Your task to perform on an android device: open chrome and create a bookmark for the current page Image 0: 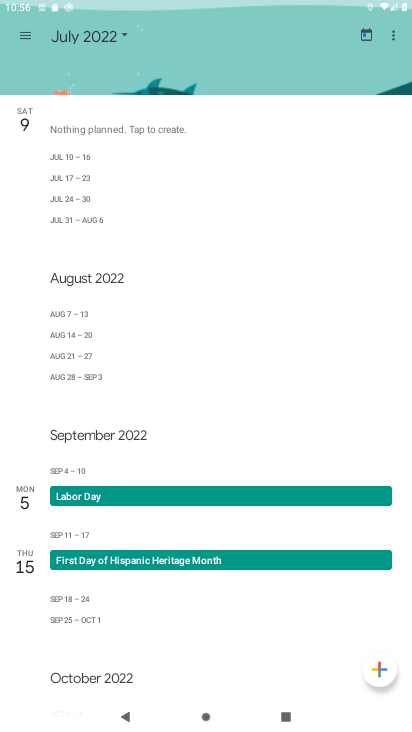
Step 0: press home button
Your task to perform on an android device: open chrome and create a bookmark for the current page Image 1: 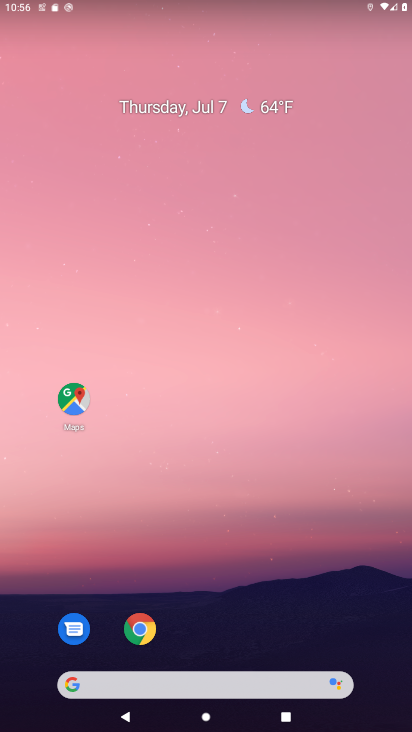
Step 1: click (218, 634)
Your task to perform on an android device: open chrome and create a bookmark for the current page Image 2: 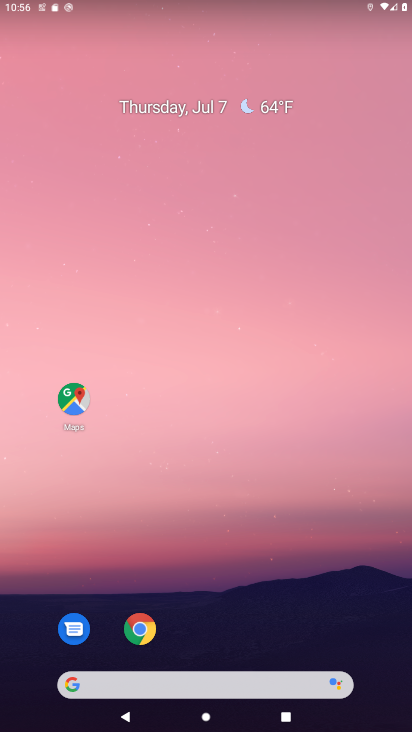
Step 2: click (141, 628)
Your task to perform on an android device: open chrome and create a bookmark for the current page Image 3: 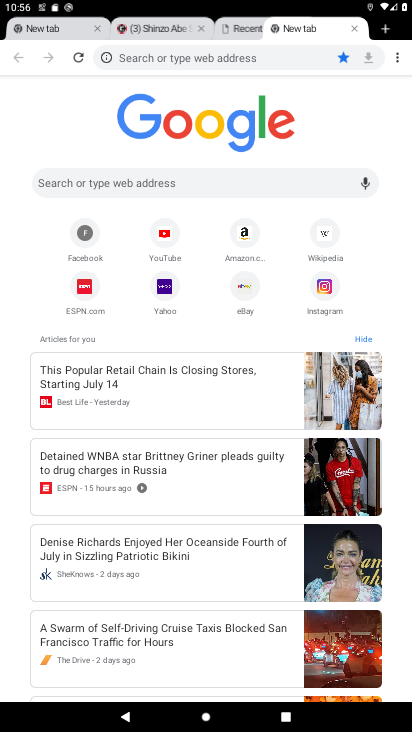
Step 3: task complete